Your task to perform on an android device: Open the calendar and show me this week's events? Image 0: 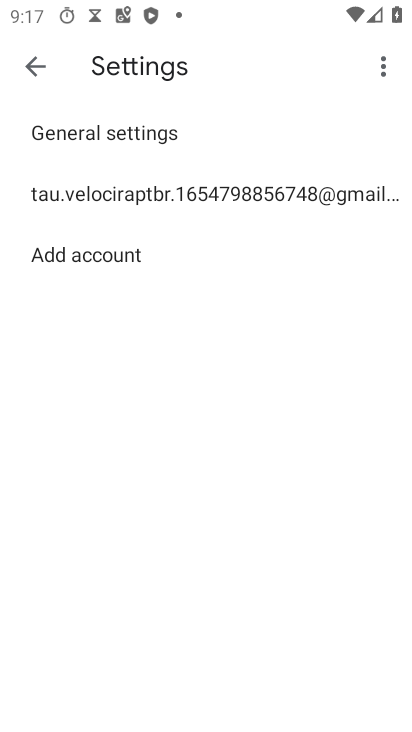
Step 0: press home button
Your task to perform on an android device: Open the calendar and show me this week's events? Image 1: 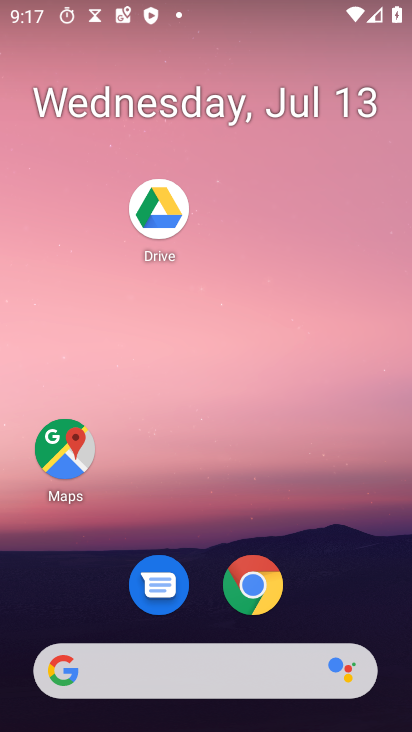
Step 1: drag from (234, 681) to (283, 207)
Your task to perform on an android device: Open the calendar and show me this week's events? Image 2: 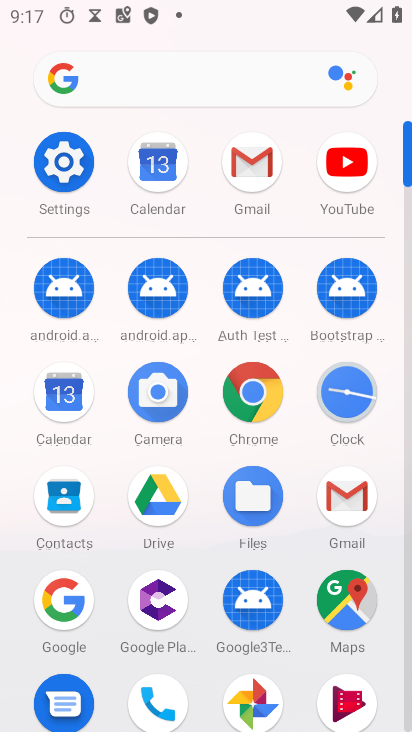
Step 2: click (158, 180)
Your task to perform on an android device: Open the calendar and show me this week's events? Image 3: 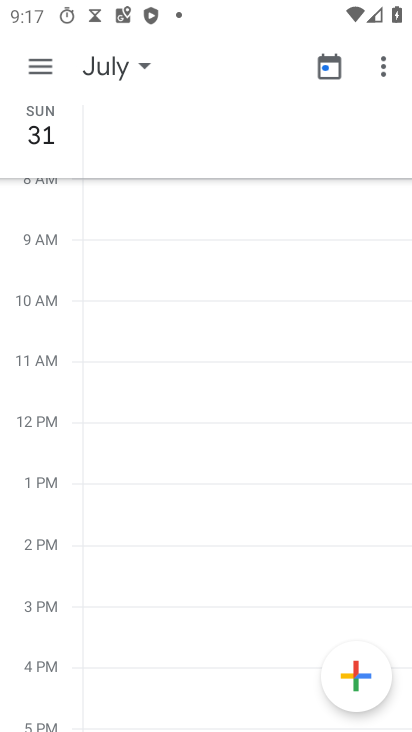
Step 3: click (117, 64)
Your task to perform on an android device: Open the calendar and show me this week's events? Image 4: 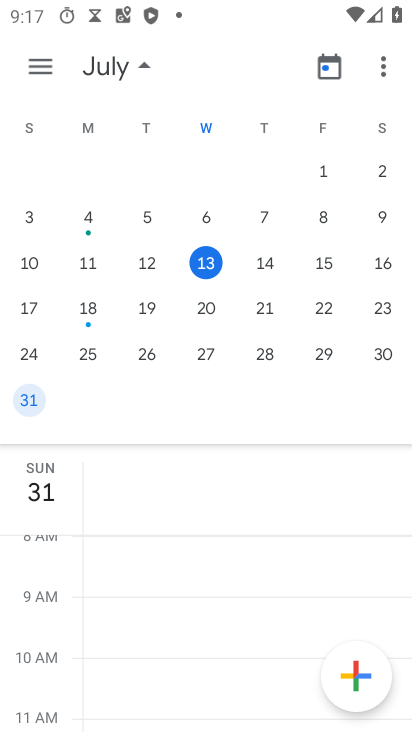
Step 4: click (207, 260)
Your task to perform on an android device: Open the calendar and show me this week's events? Image 5: 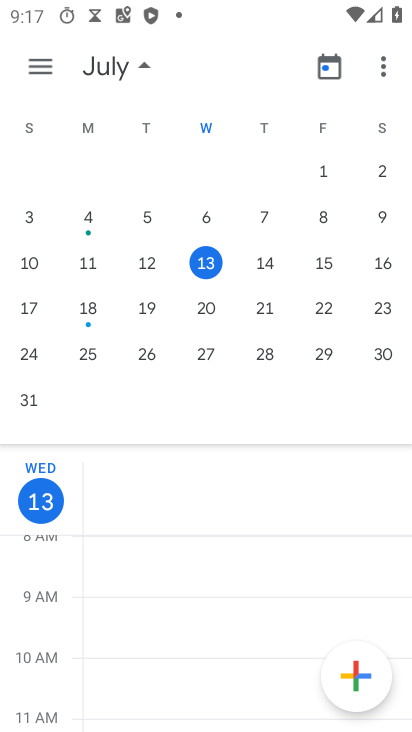
Step 5: click (45, 66)
Your task to perform on an android device: Open the calendar and show me this week's events? Image 6: 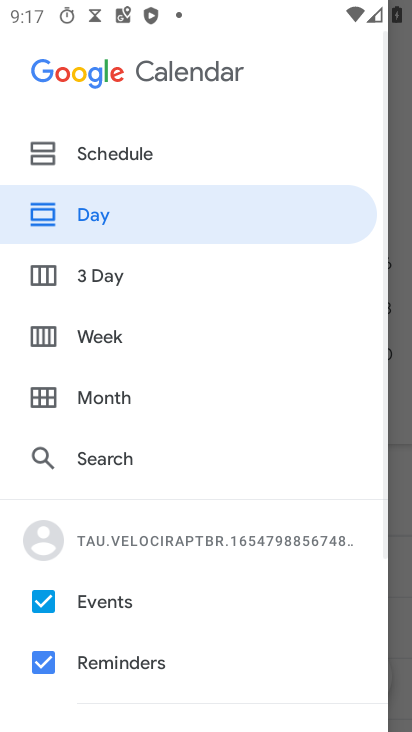
Step 6: click (103, 346)
Your task to perform on an android device: Open the calendar and show me this week's events? Image 7: 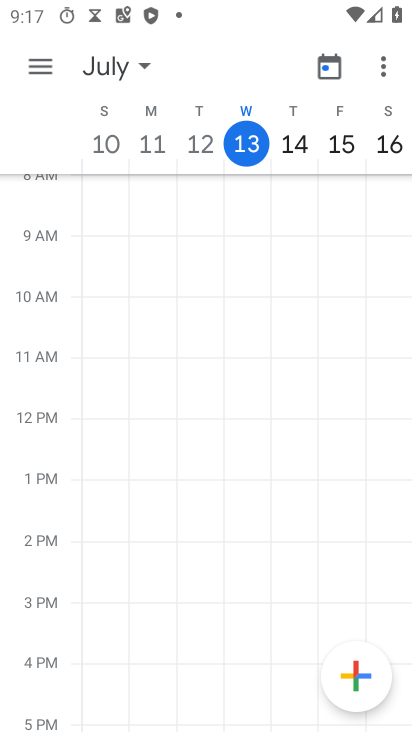
Step 7: click (46, 59)
Your task to perform on an android device: Open the calendar and show me this week's events? Image 8: 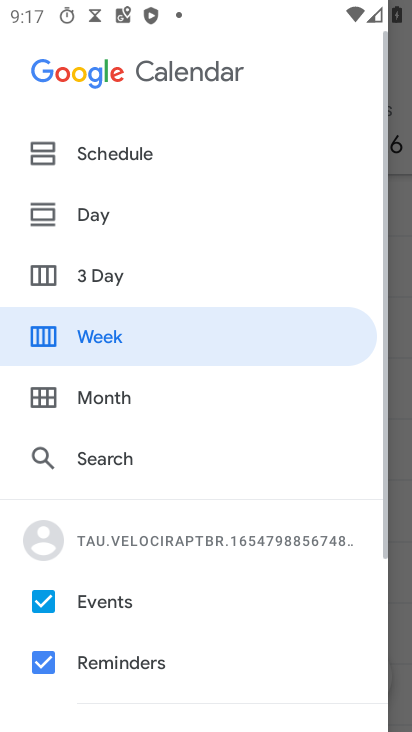
Step 8: click (108, 154)
Your task to perform on an android device: Open the calendar and show me this week's events? Image 9: 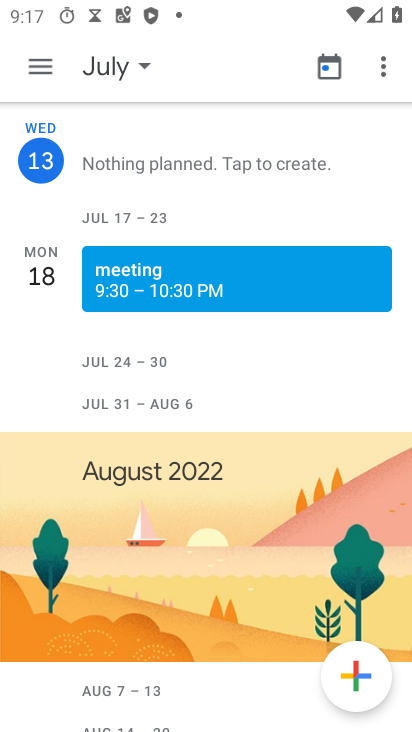
Step 9: task complete